Your task to perform on an android device: turn smart compose on in the gmail app Image 0: 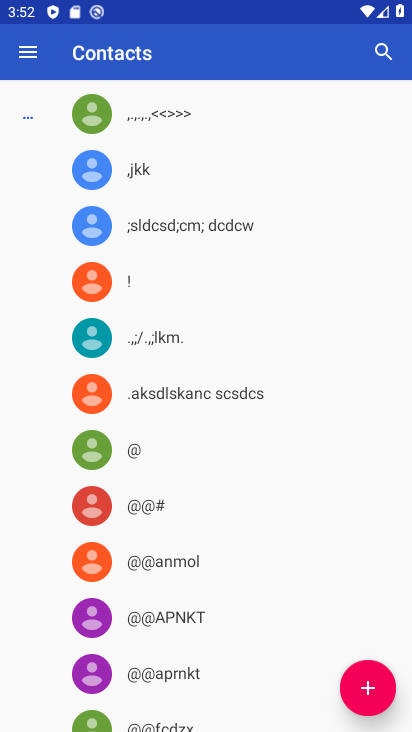
Step 0: press home button
Your task to perform on an android device: turn smart compose on in the gmail app Image 1: 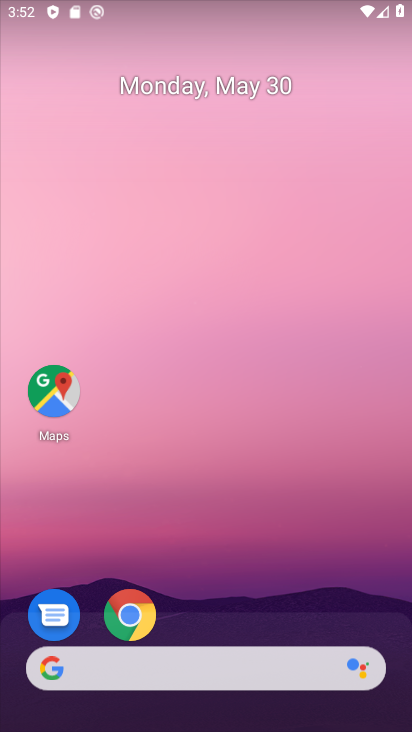
Step 1: drag from (196, 631) to (184, 0)
Your task to perform on an android device: turn smart compose on in the gmail app Image 2: 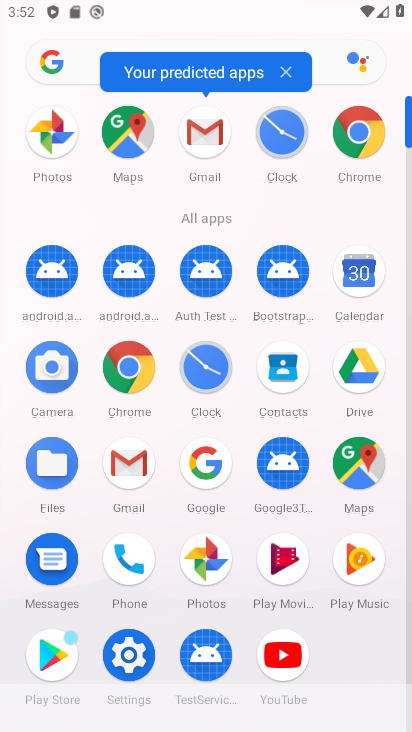
Step 2: click (201, 147)
Your task to perform on an android device: turn smart compose on in the gmail app Image 3: 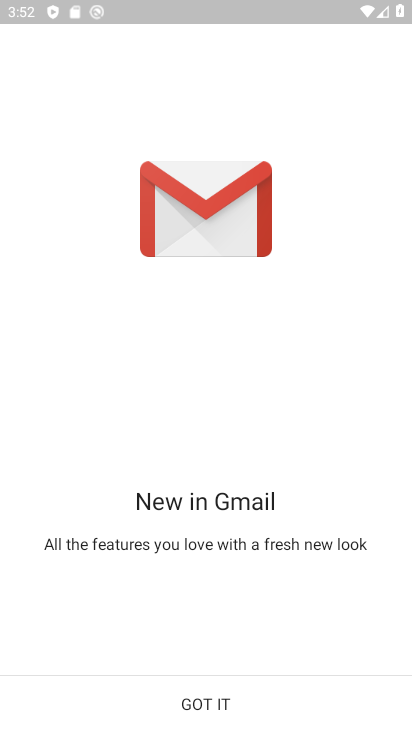
Step 3: click (244, 710)
Your task to perform on an android device: turn smart compose on in the gmail app Image 4: 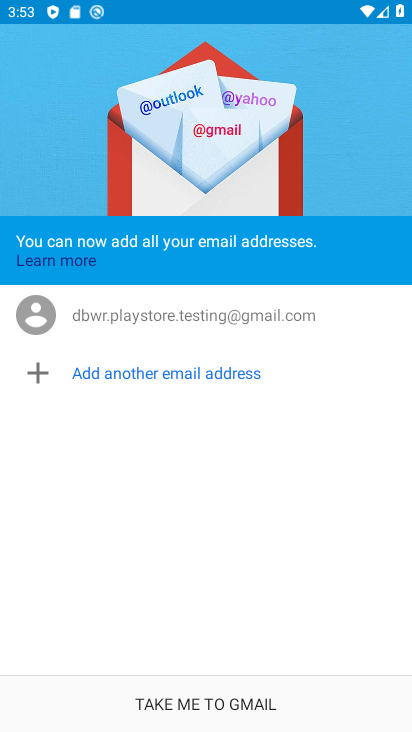
Step 4: click (243, 711)
Your task to perform on an android device: turn smart compose on in the gmail app Image 5: 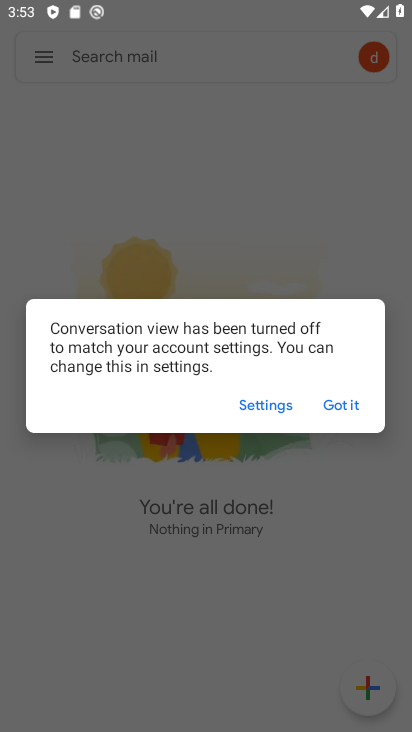
Step 5: click (345, 411)
Your task to perform on an android device: turn smart compose on in the gmail app Image 6: 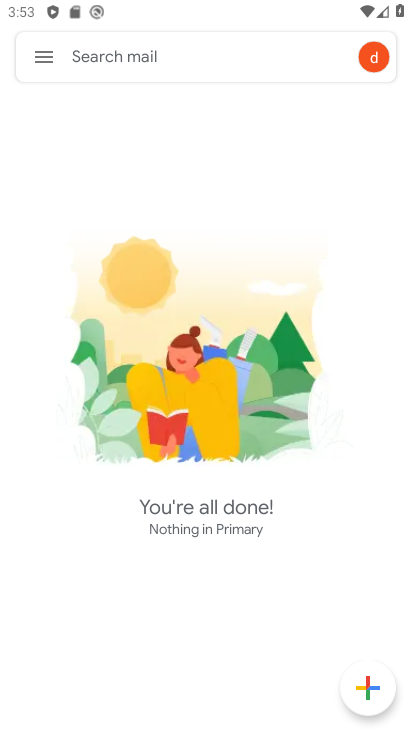
Step 6: click (39, 59)
Your task to perform on an android device: turn smart compose on in the gmail app Image 7: 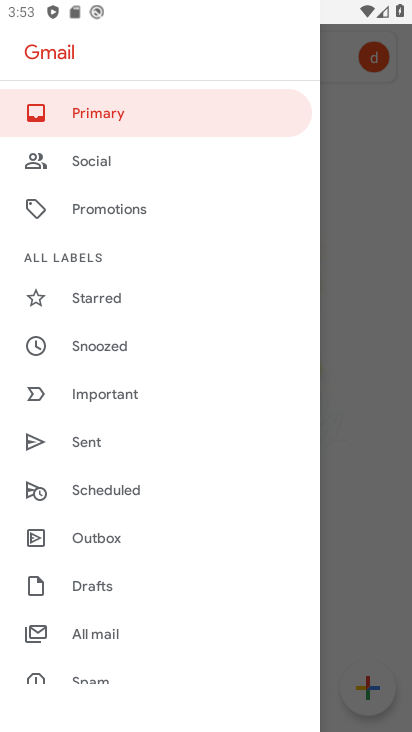
Step 7: drag from (123, 626) to (79, 160)
Your task to perform on an android device: turn smart compose on in the gmail app Image 8: 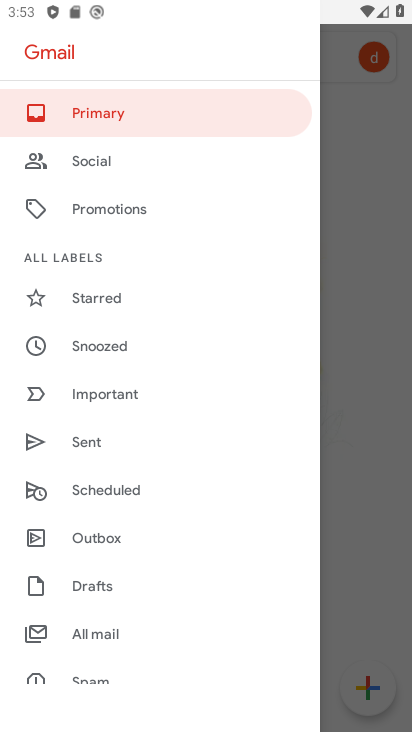
Step 8: drag from (123, 655) to (87, 262)
Your task to perform on an android device: turn smart compose on in the gmail app Image 9: 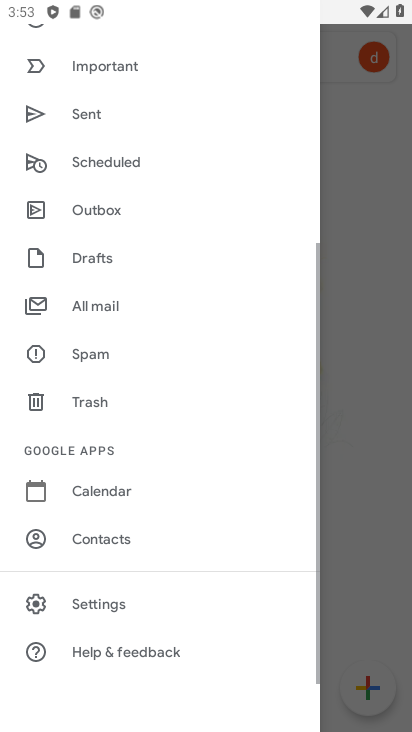
Step 9: click (126, 602)
Your task to perform on an android device: turn smart compose on in the gmail app Image 10: 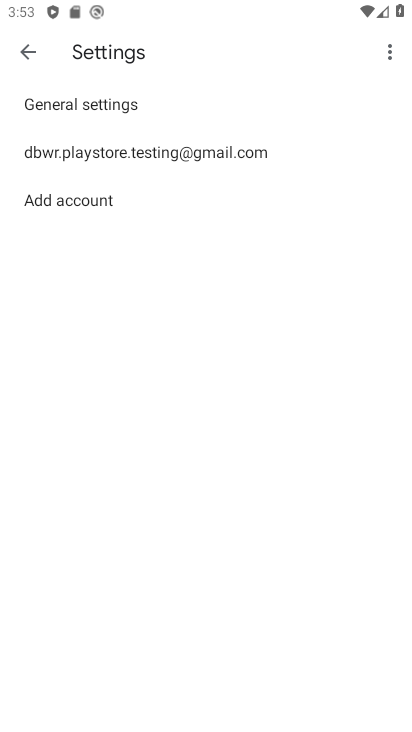
Step 10: click (93, 155)
Your task to perform on an android device: turn smart compose on in the gmail app Image 11: 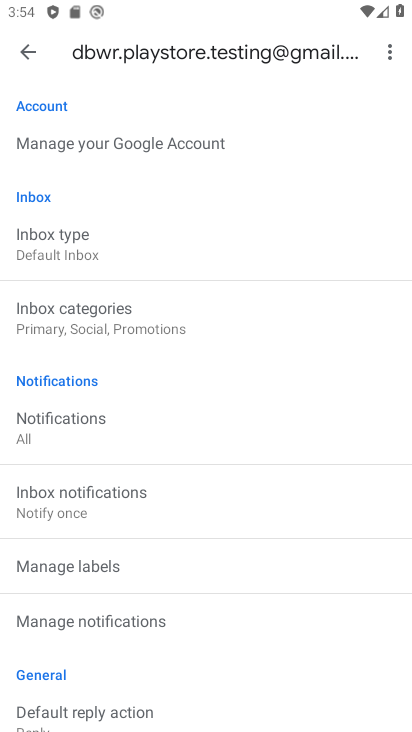
Step 11: task complete